Your task to perform on an android device: toggle location history Image 0: 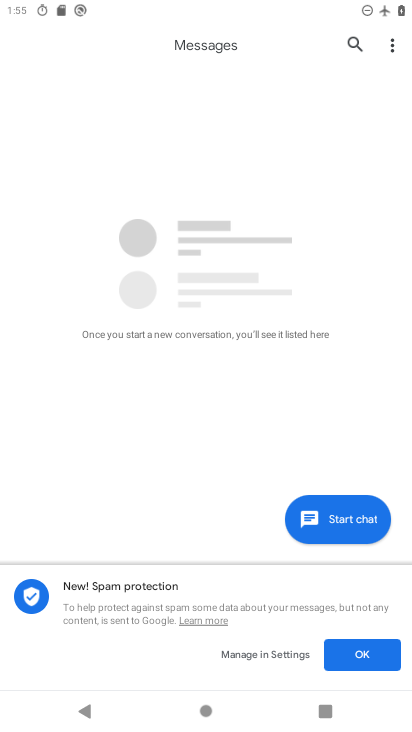
Step 0: press home button
Your task to perform on an android device: toggle location history Image 1: 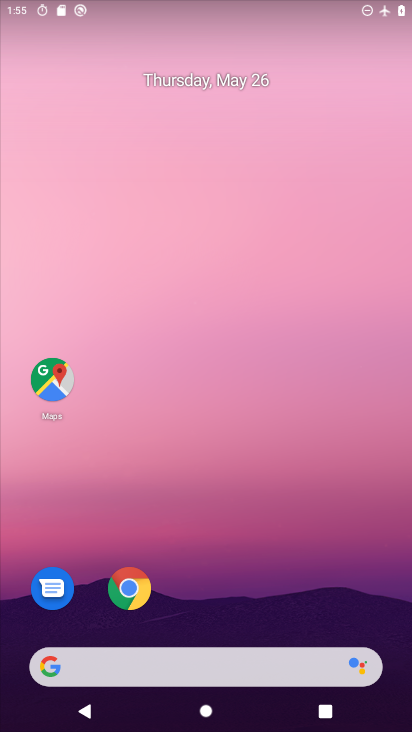
Step 1: drag from (399, 712) to (361, 350)
Your task to perform on an android device: toggle location history Image 2: 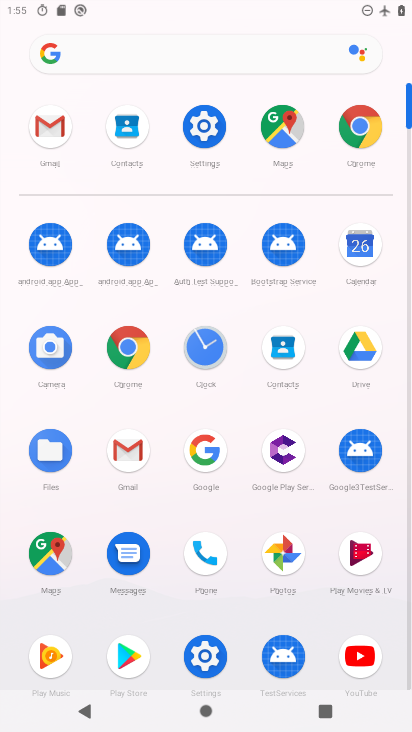
Step 2: click (206, 656)
Your task to perform on an android device: toggle location history Image 3: 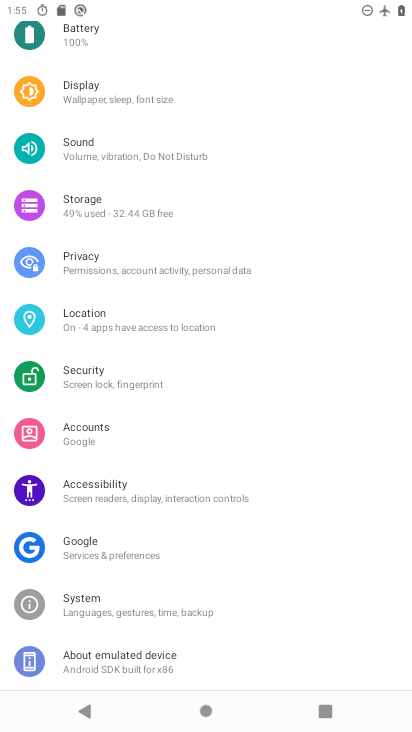
Step 3: click (71, 328)
Your task to perform on an android device: toggle location history Image 4: 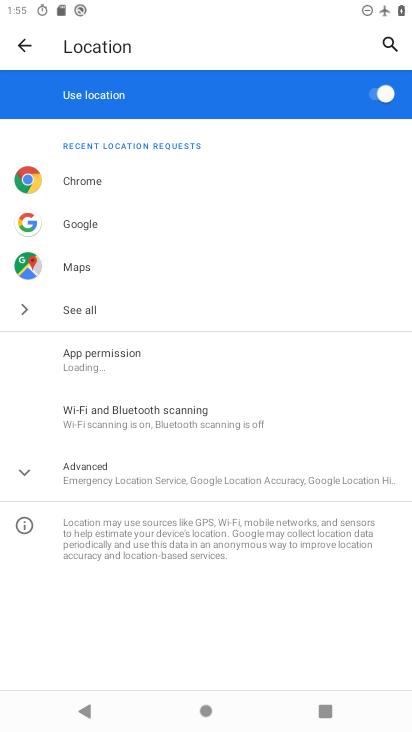
Step 4: click (16, 470)
Your task to perform on an android device: toggle location history Image 5: 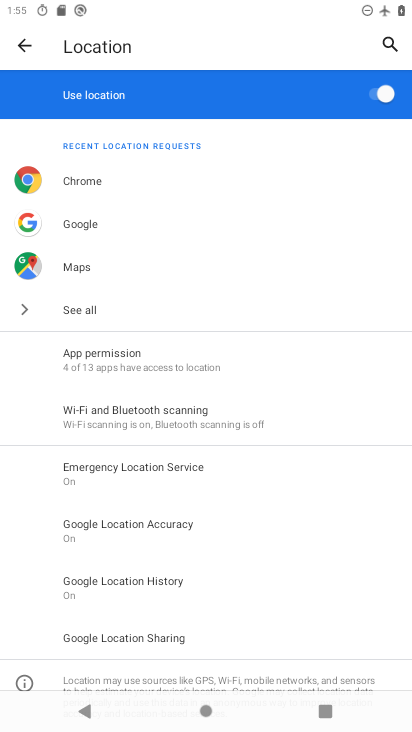
Step 5: click (100, 586)
Your task to perform on an android device: toggle location history Image 6: 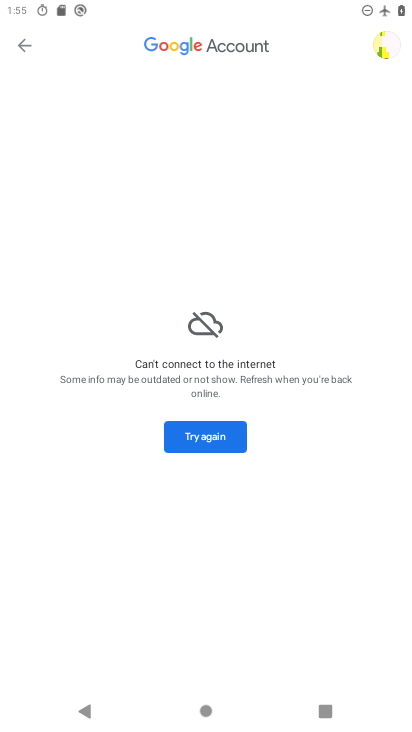
Step 6: task complete